Your task to perform on an android device: When is my next appointment? Image 0: 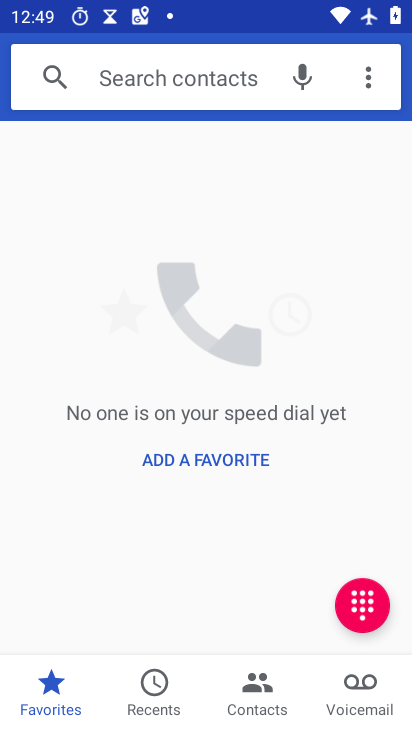
Step 0: press home button
Your task to perform on an android device: When is my next appointment? Image 1: 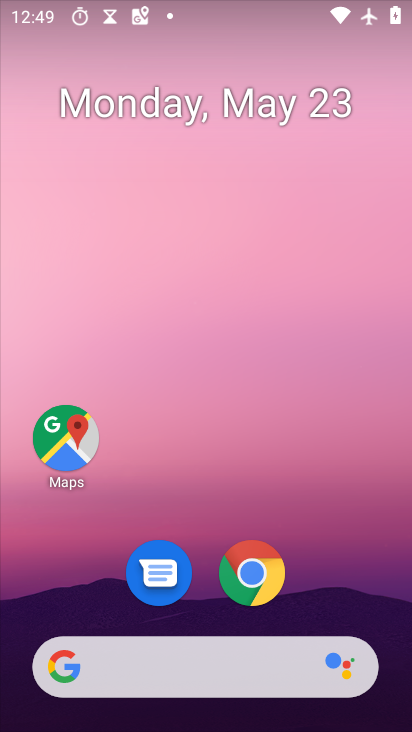
Step 1: drag from (146, 660) to (273, 93)
Your task to perform on an android device: When is my next appointment? Image 2: 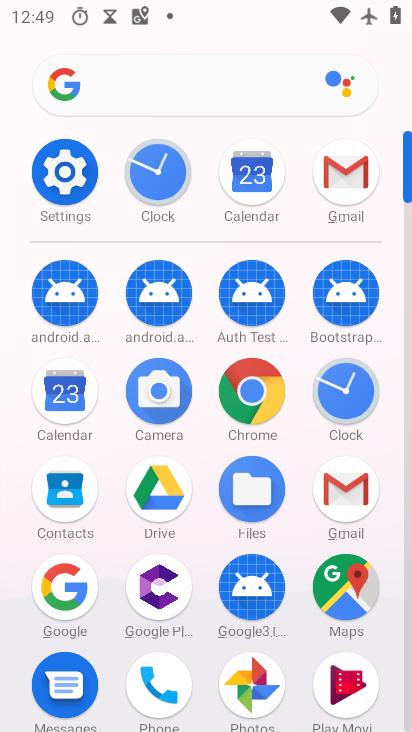
Step 2: click (77, 406)
Your task to perform on an android device: When is my next appointment? Image 3: 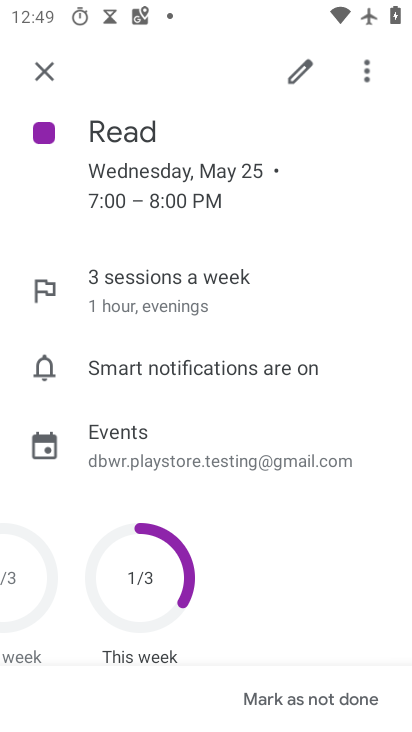
Step 3: task complete